Your task to perform on an android device: remove spam from my inbox in the gmail app Image 0: 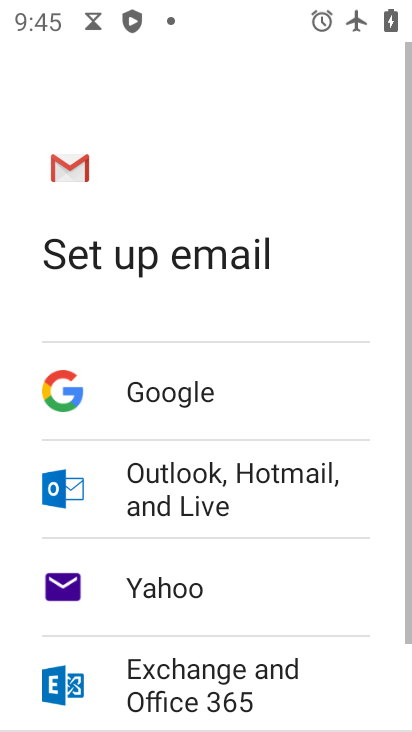
Step 0: press home button
Your task to perform on an android device: remove spam from my inbox in the gmail app Image 1: 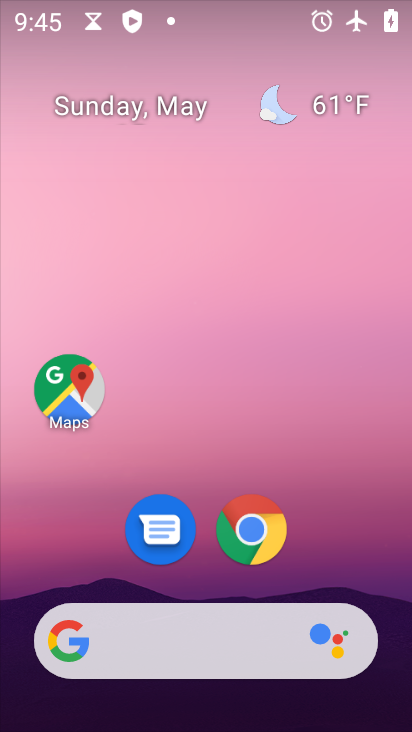
Step 1: drag from (212, 718) to (220, 245)
Your task to perform on an android device: remove spam from my inbox in the gmail app Image 2: 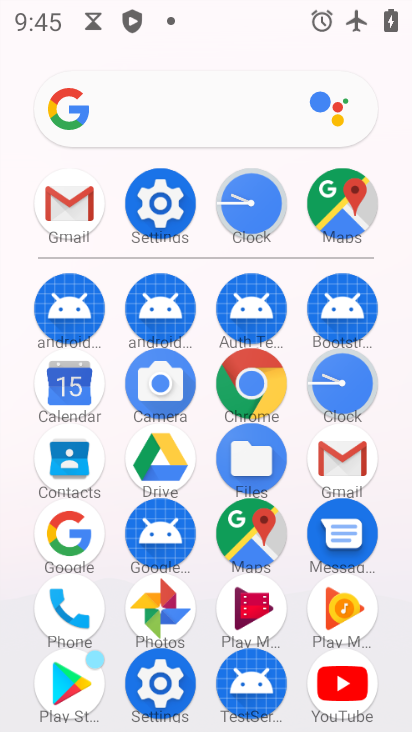
Step 2: click (348, 448)
Your task to perform on an android device: remove spam from my inbox in the gmail app Image 3: 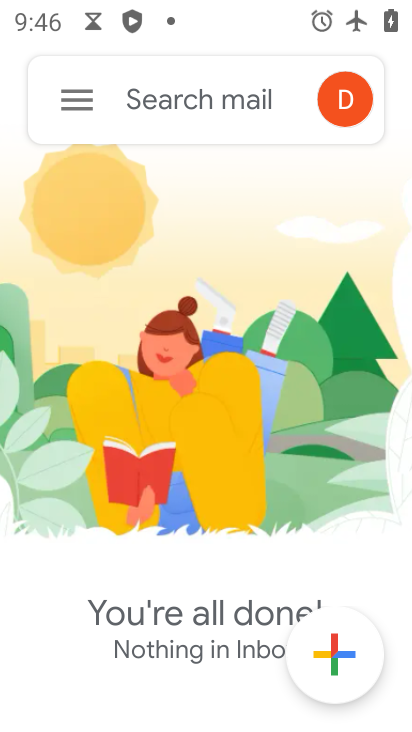
Step 3: task complete